Your task to perform on an android device: What is the recent news? Image 0: 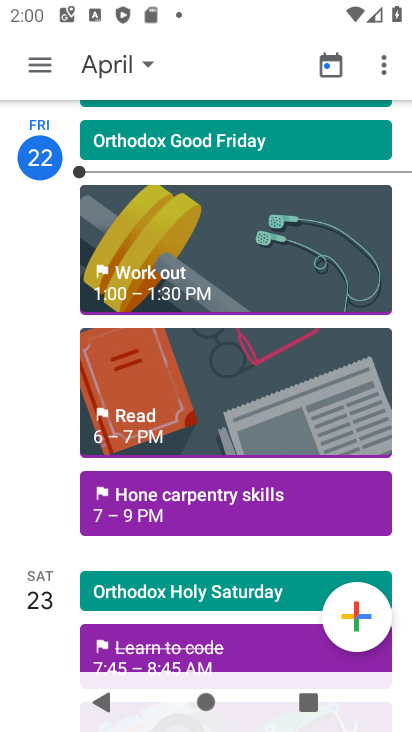
Step 0: press home button
Your task to perform on an android device: What is the recent news? Image 1: 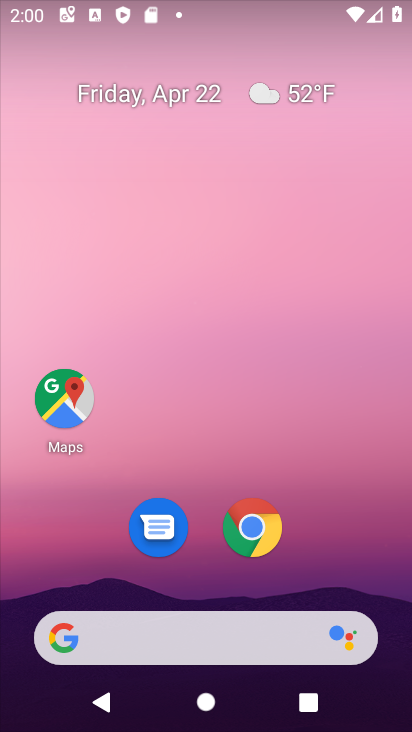
Step 1: click (239, 520)
Your task to perform on an android device: What is the recent news? Image 2: 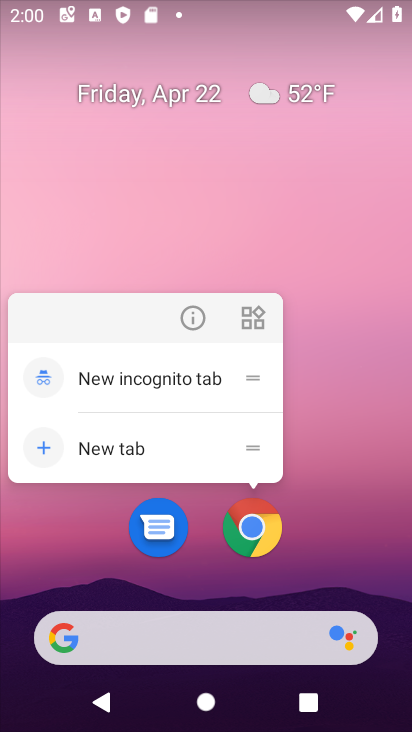
Step 2: click (239, 518)
Your task to perform on an android device: What is the recent news? Image 3: 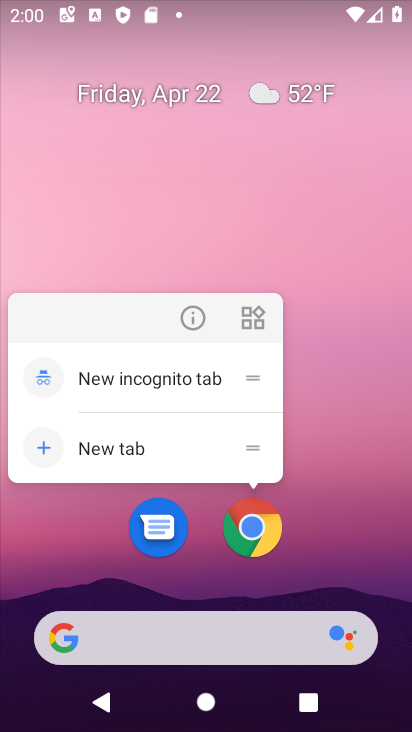
Step 3: click (239, 518)
Your task to perform on an android device: What is the recent news? Image 4: 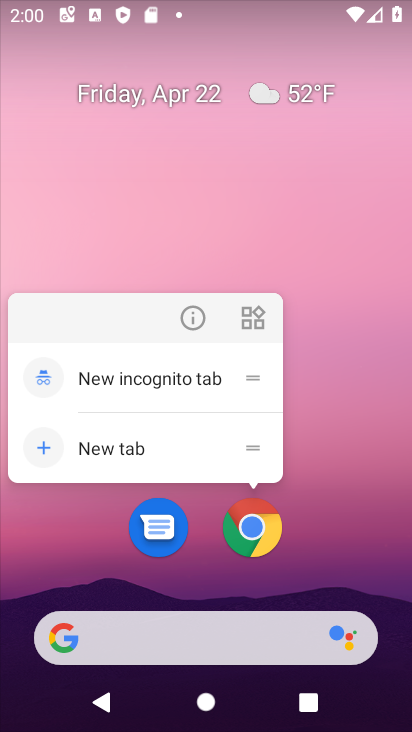
Step 4: click (239, 518)
Your task to perform on an android device: What is the recent news? Image 5: 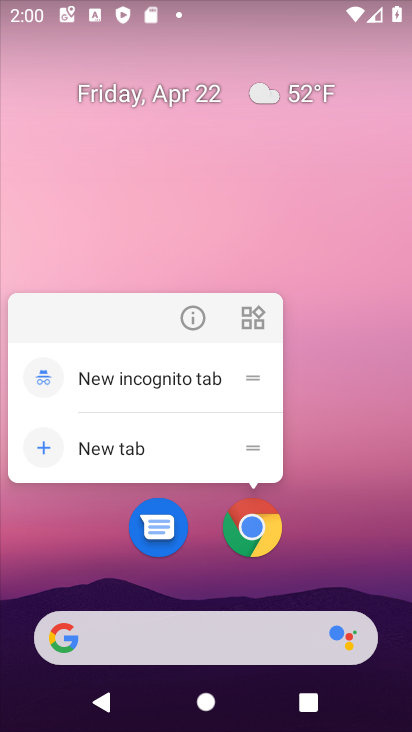
Step 5: click (239, 516)
Your task to perform on an android device: What is the recent news? Image 6: 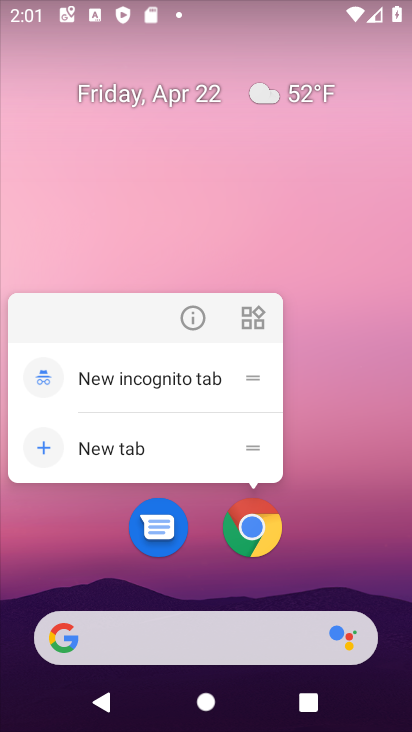
Step 6: click (239, 515)
Your task to perform on an android device: What is the recent news? Image 7: 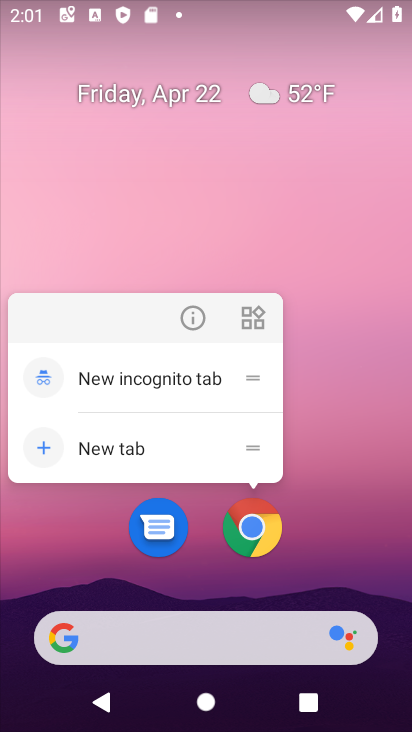
Step 7: click (239, 515)
Your task to perform on an android device: What is the recent news? Image 8: 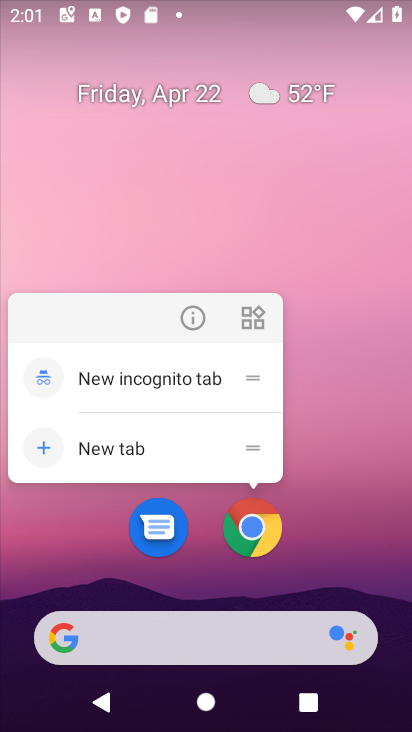
Step 8: click (239, 514)
Your task to perform on an android device: What is the recent news? Image 9: 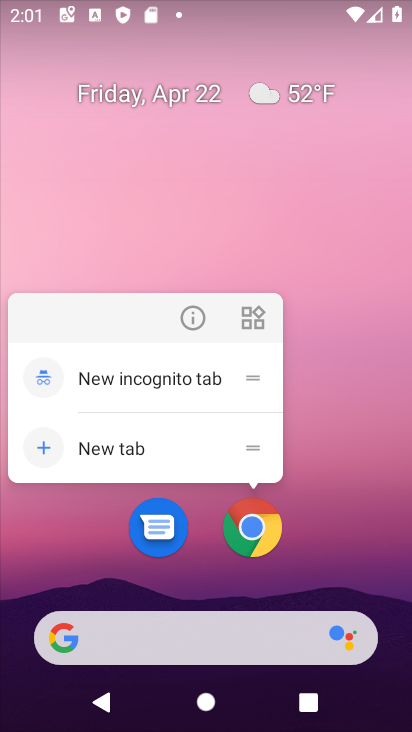
Step 9: click (239, 513)
Your task to perform on an android device: What is the recent news? Image 10: 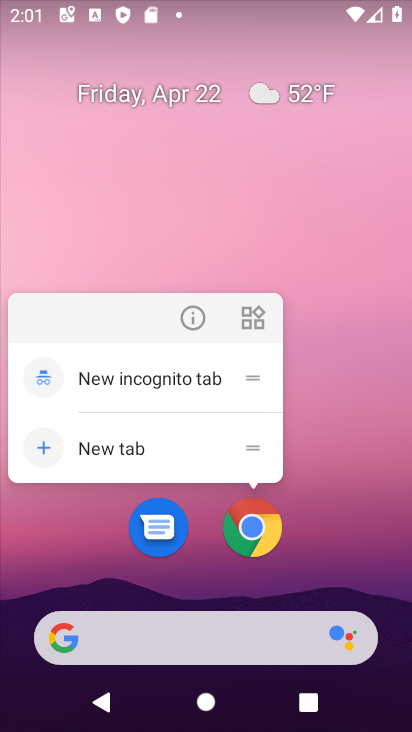
Step 10: click (239, 512)
Your task to perform on an android device: What is the recent news? Image 11: 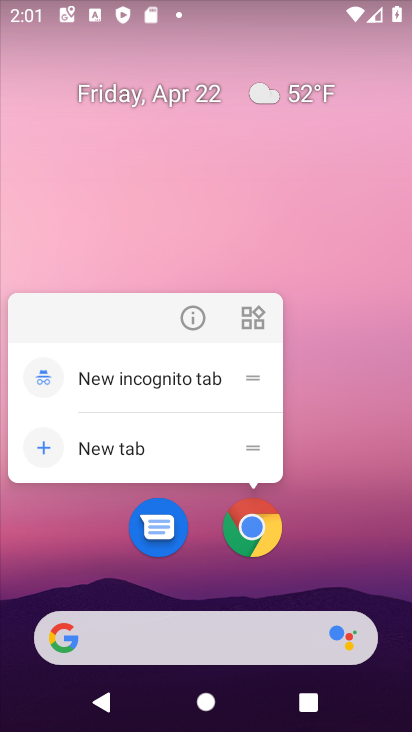
Step 11: click (259, 514)
Your task to perform on an android device: What is the recent news? Image 12: 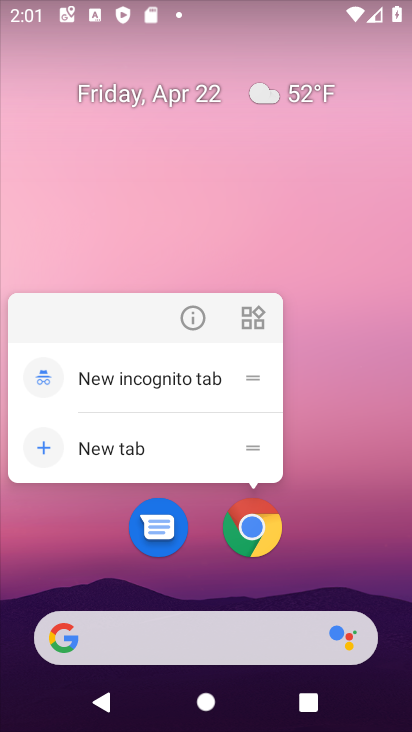
Step 12: click (259, 514)
Your task to perform on an android device: What is the recent news? Image 13: 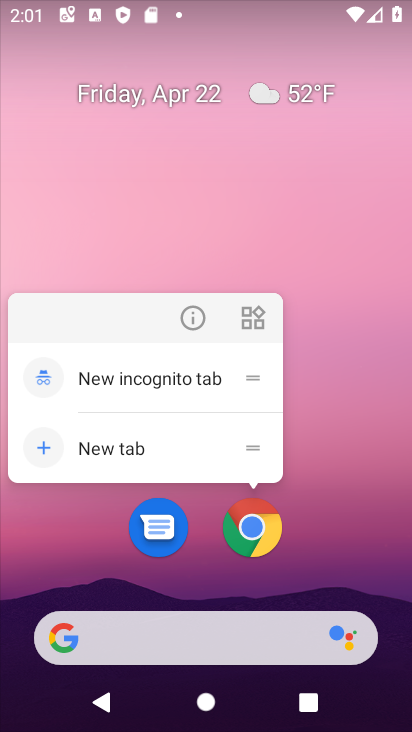
Step 13: click (258, 509)
Your task to perform on an android device: What is the recent news? Image 14: 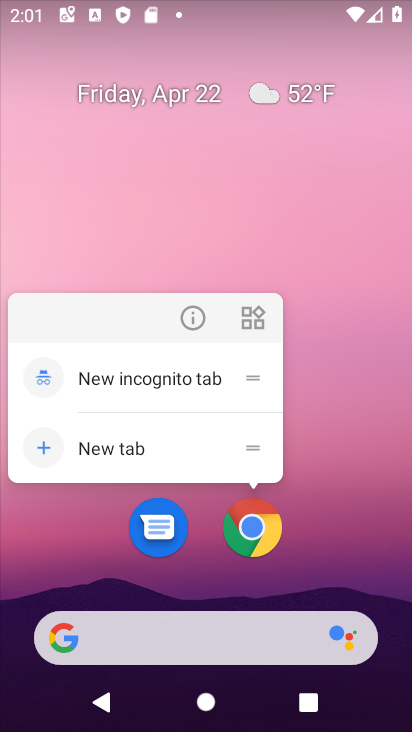
Step 14: click (257, 508)
Your task to perform on an android device: What is the recent news? Image 15: 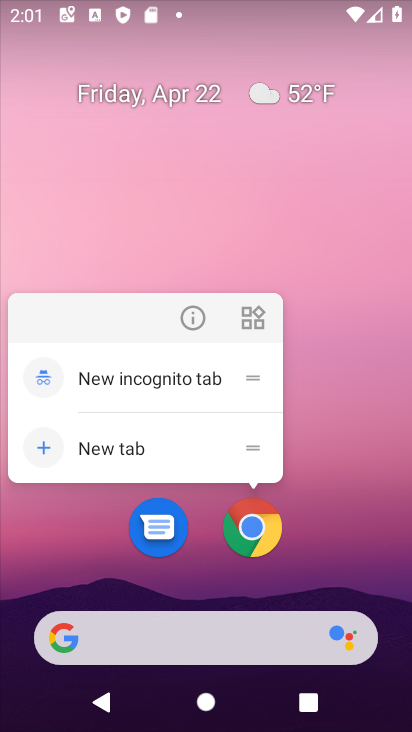
Step 15: click (245, 523)
Your task to perform on an android device: What is the recent news? Image 16: 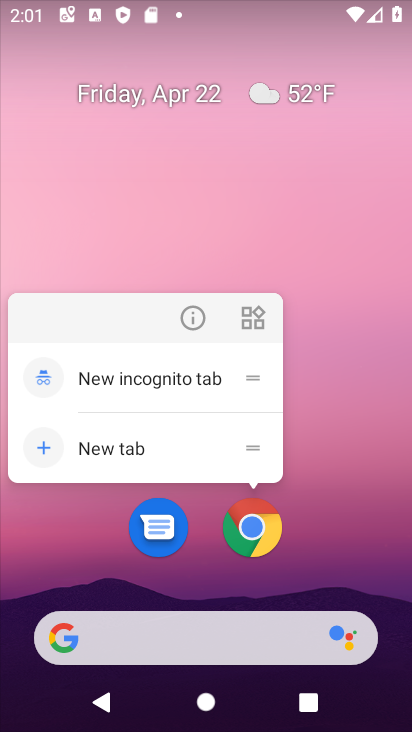
Step 16: click (245, 523)
Your task to perform on an android device: What is the recent news? Image 17: 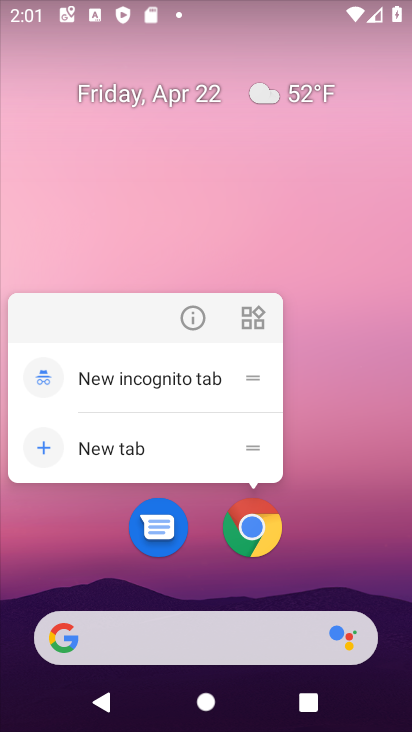
Step 17: click (245, 523)
Your task to perform on an android device: What is the recent news? Image 18: 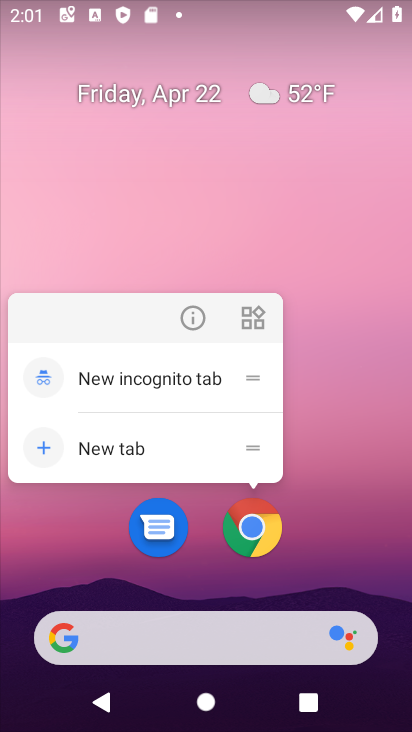
Step 18: click (245, 523)
Your task to perform on an android device: What is the recent news? Image 19: 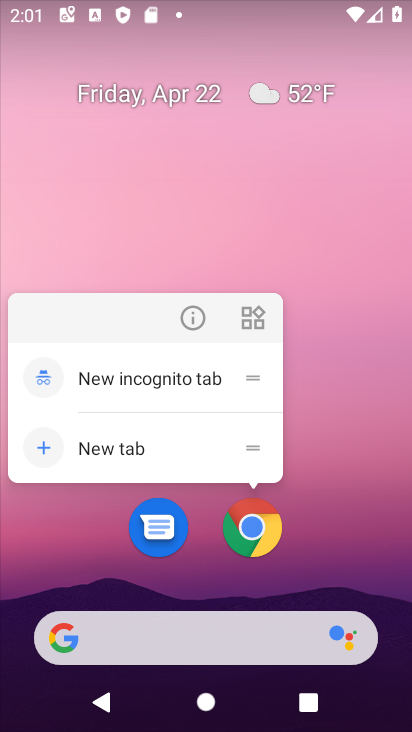
Step 19: click (245, 523)
Your task to perform on an android device: What is the recent news? Image 20: 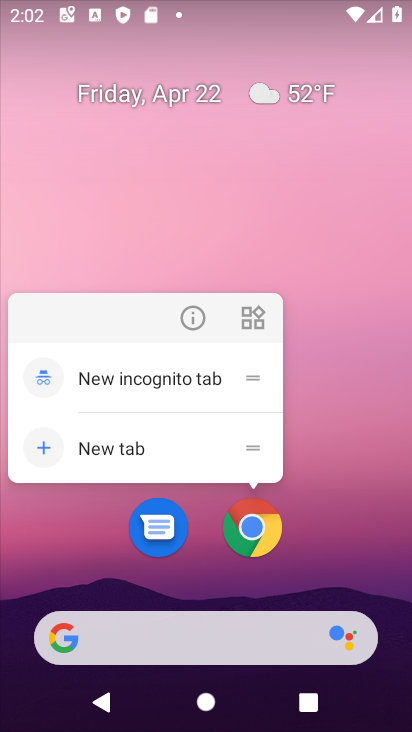
Step 20: click (245, 523)
Your task to perform on an android device: What is the recent news? Image 21: 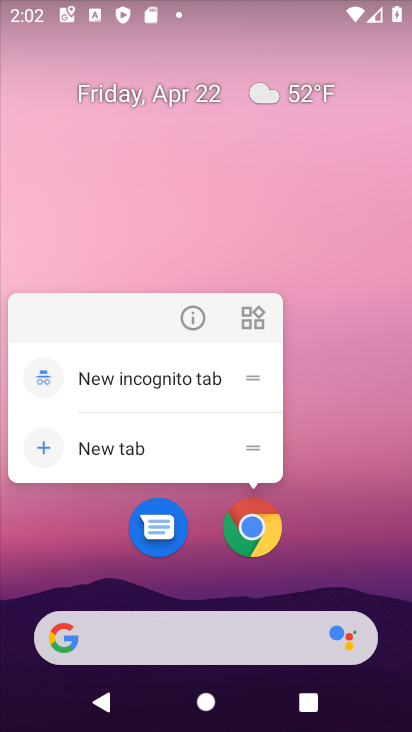
Step 21: click (245, 523)
Your task to perform on an android device: What is the recent news? Image 22: 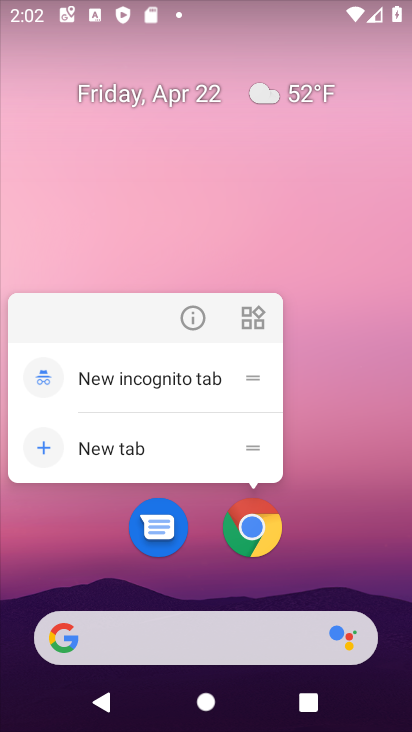
Step 22: click (245, 523)
Your task to perform on an android device: What is the recent news? Image 23: 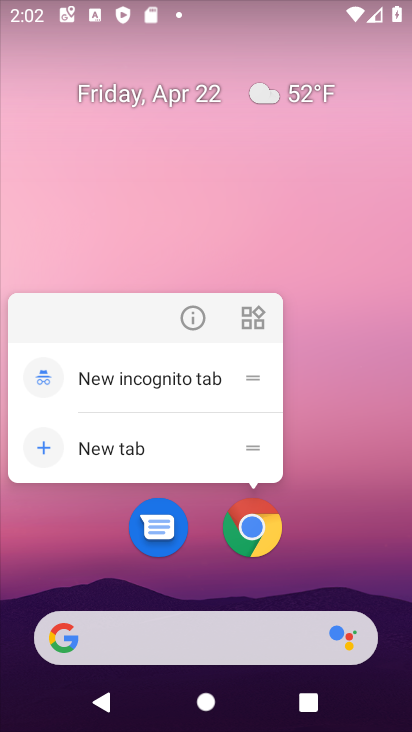
Step 23: click (245, 523)
Your task to perform on an android device: What is the recent news? Image 24: 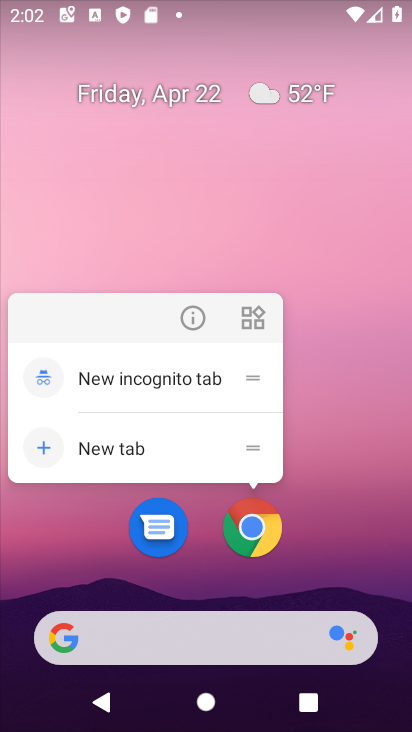
Step 24: click (245, 523)
Your task to perform on an android device: What is the recent news? Image 25: 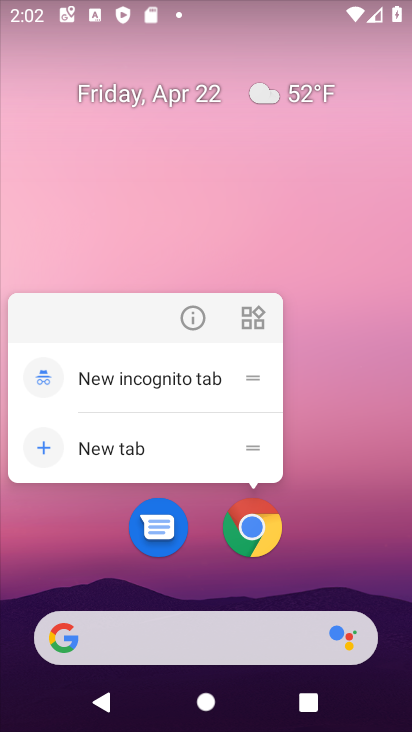
Step 25: click (245, 523)
Your task to perform on an android device: What is the recent news? Image 26: 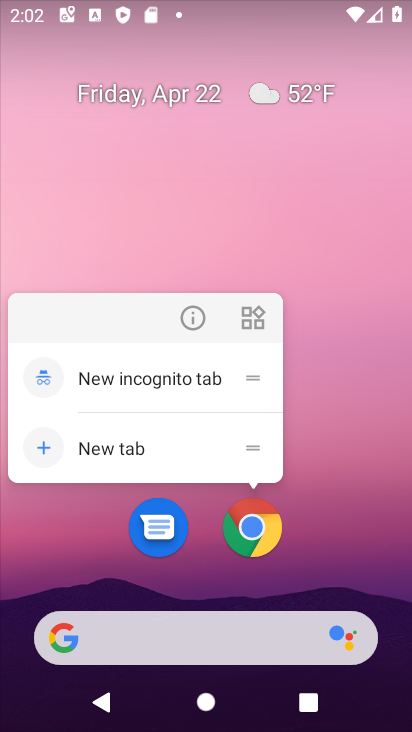
Step 26: click (245, 523)
Your task to perform on an android device: What is the recent news? Image 27: 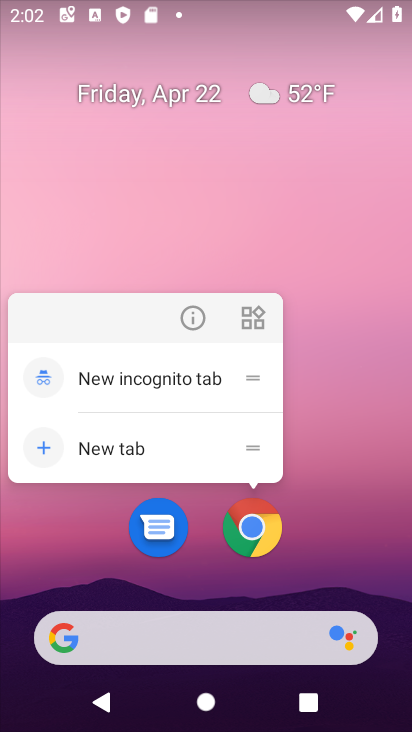
Step 27: click (245, 523)
Your task to perform on an android device: What is the recent news? Image 28: 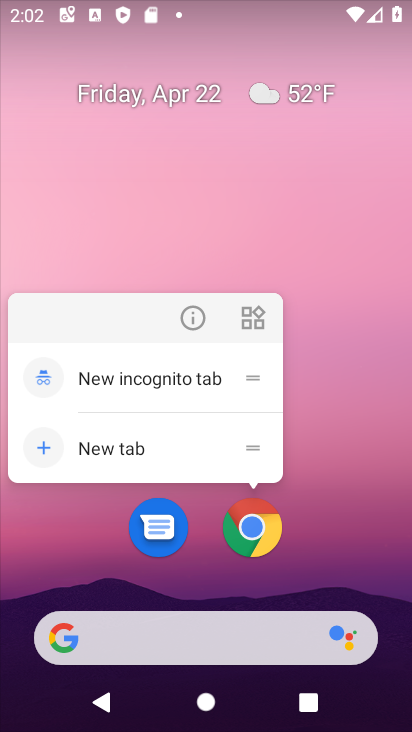
Step 28: click (245, 523)
Your task to perform on an android device: What is the recent news? Image 29: 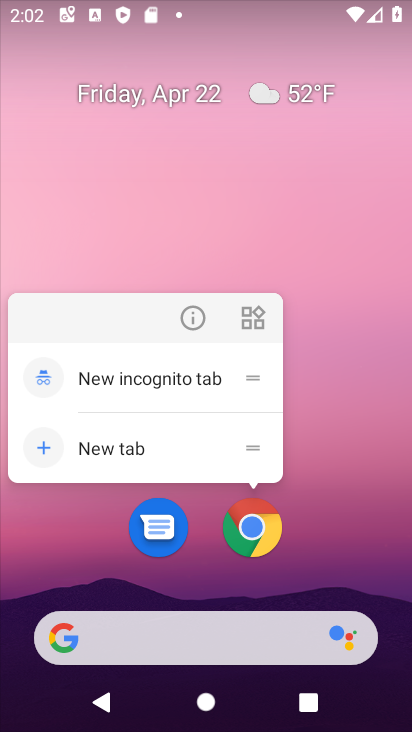
Step 29: click (265, 550)
Your task to perform on an android device: What is the recent news? Image 30: 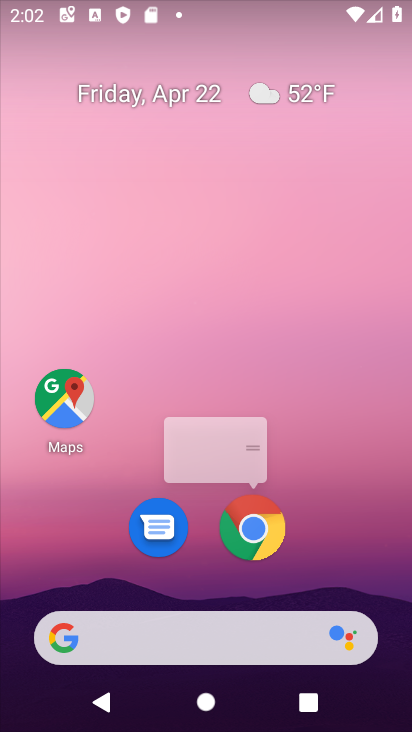
Step 30: click (240, 499)
Your task to perform on an android device: What is the recent news? Image 31: 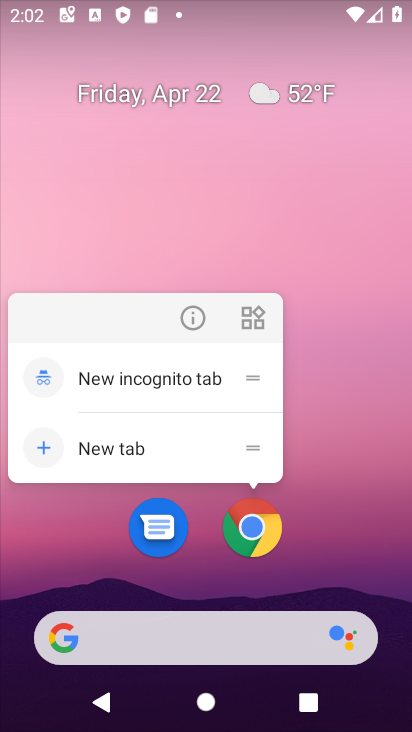
Step 31: click (240, 499)
Your task to perform on an android device: What is the recent news? Image 32: 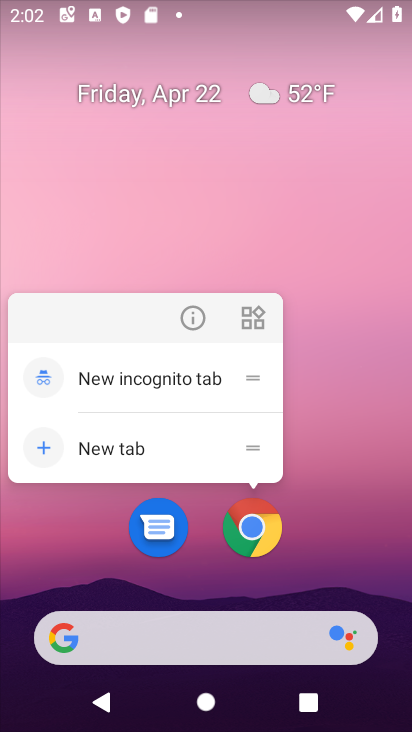
Step 32: click (246, 507)
Your task to perform on an android device: What is the recent news? Image 33: 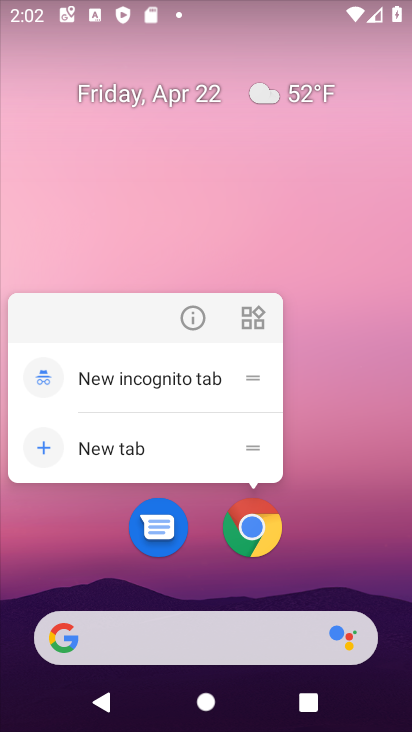
Step 33: click (248, 525)
Your task to perform on an android device: What is the recent news? Image 34: 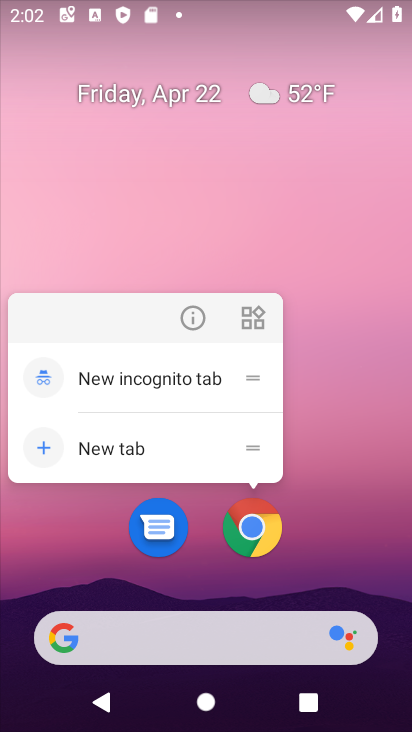
Step 34: click (248, 525)
Your task to perform on an android device: What is the recent news? Image 35: 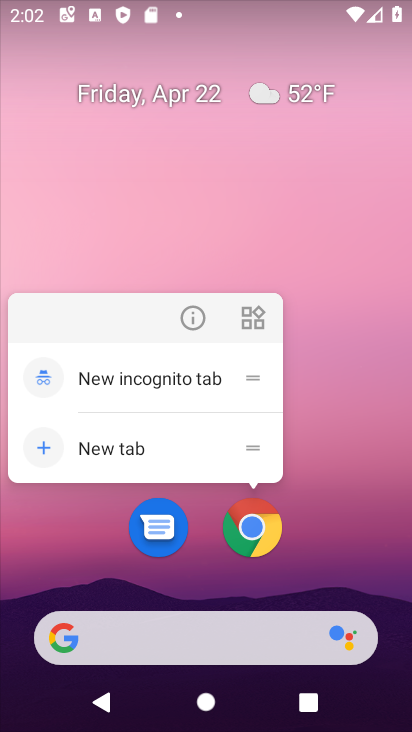
Step 35: click (245, 533)
Your task to perform on an android device: What is the recent news? Image 36: 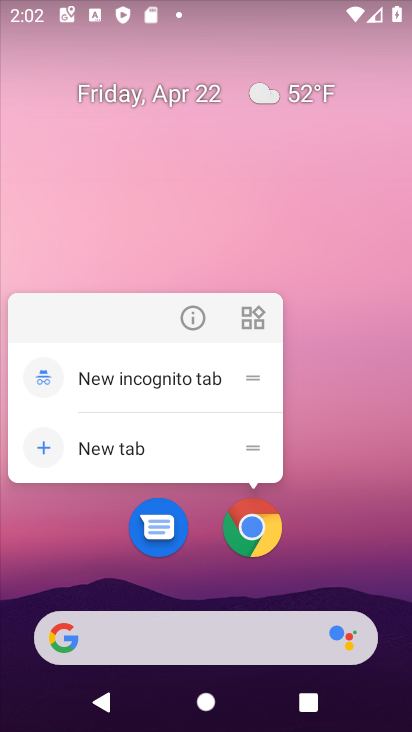
Step 36: click (246, 533)
Your task to perform on an android device: What is the recent news? Image 37: 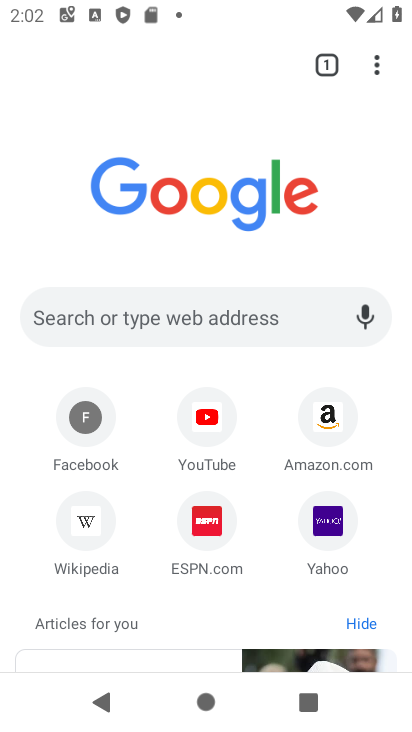
Step 37: task complete